Your task to perform on an android device: Go to privacy settings Image 0: 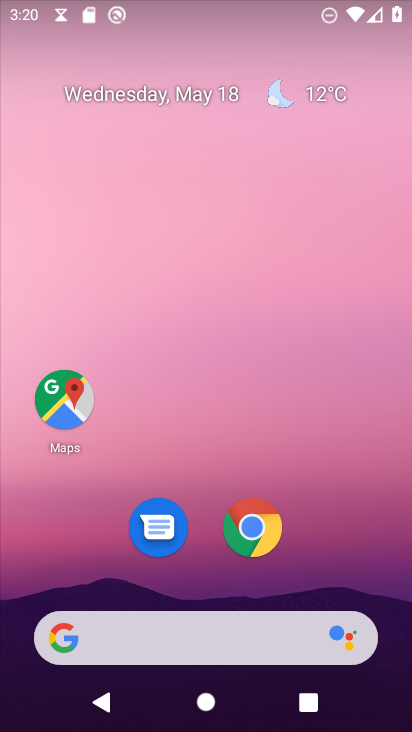
Step 0: drag from (313, 410) to (255, 62)
Your task to perform on an android device: Go to privacy settings Image 1: 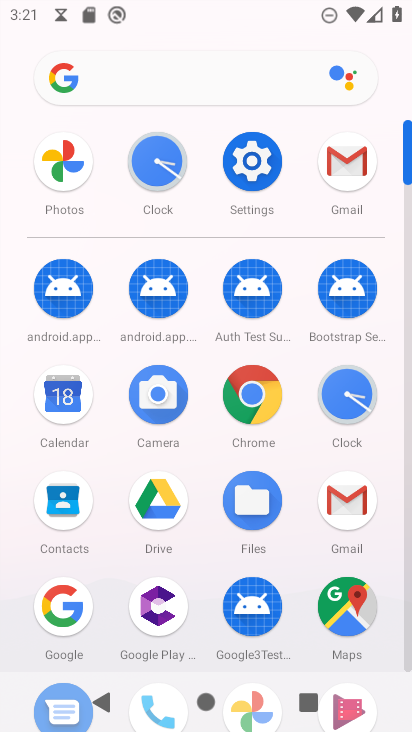
Step 1: click (260, 166)
Your task to perform on an android device: Go to privacy settings Image 2: 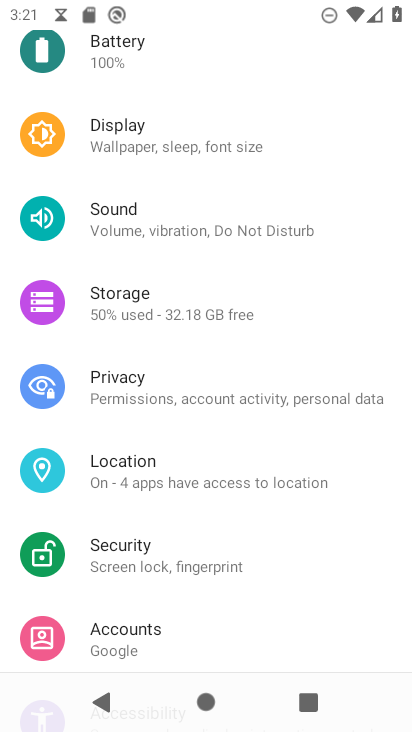
Step 2: click (166, 390)
Your task to perform on an android device: Go to privacy settings Image 3: 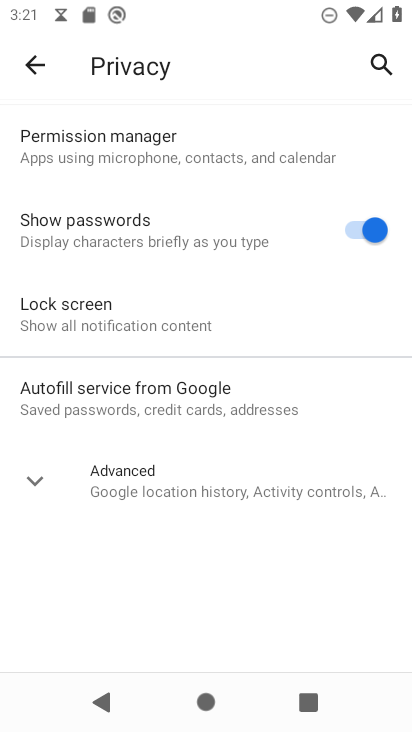
Step 3: task complete